Your task to perform on an android device: See recent photos Image 0: 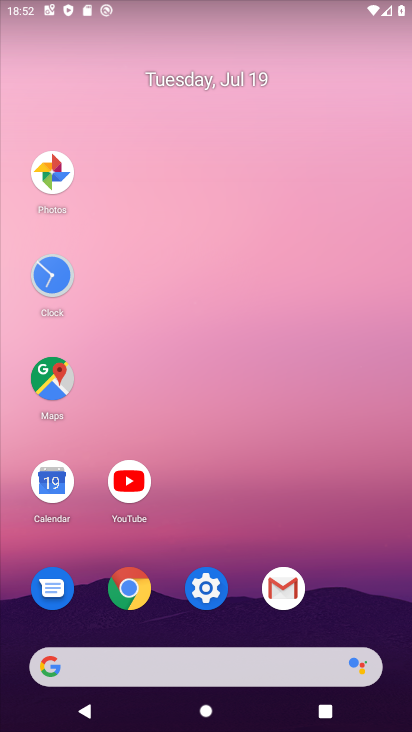
Step 0: click (53, 173)
Your task to perform on an android device: See recent photos Image 1: 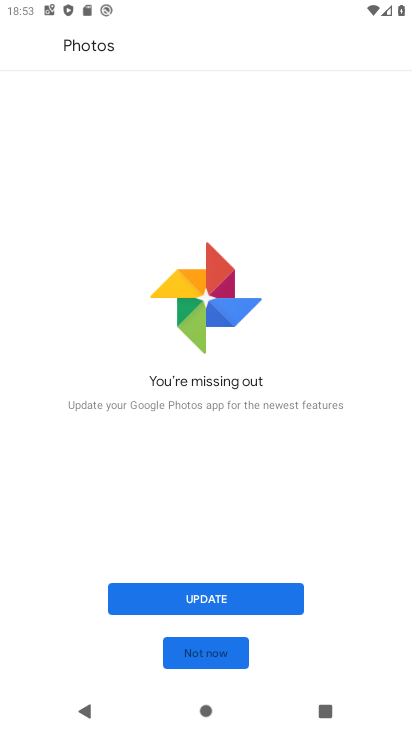
Step 1: click (186, 611)
Your task to perform on an android device: See recent photos Image 2: 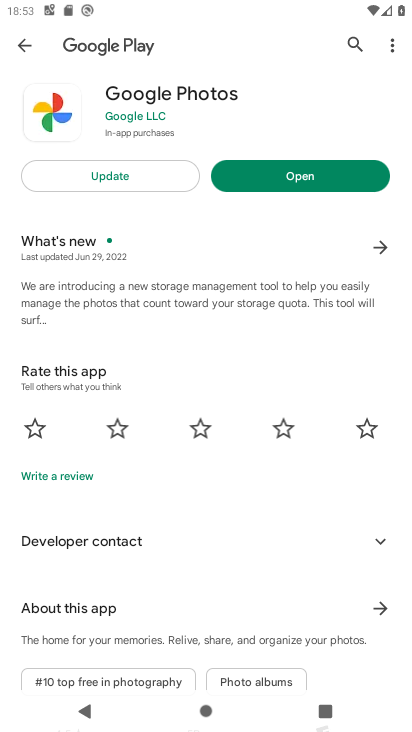
Step 2: click (109, 168)
Your task to perform on an android device: See recent photos Image 3: 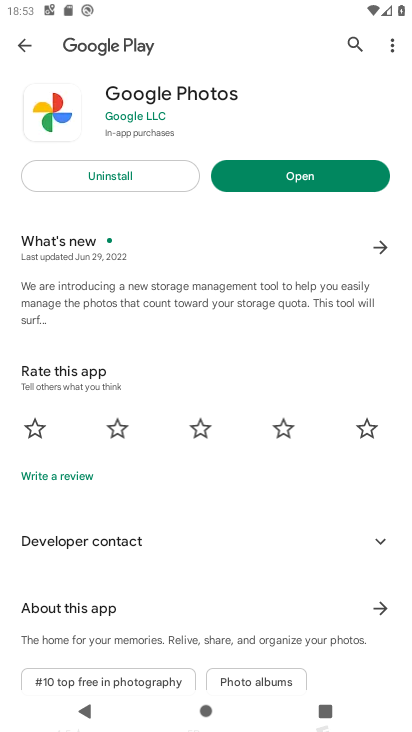
Step 3: click (280, 170)
Your task to perform on an android device: See recent photos Image 4: 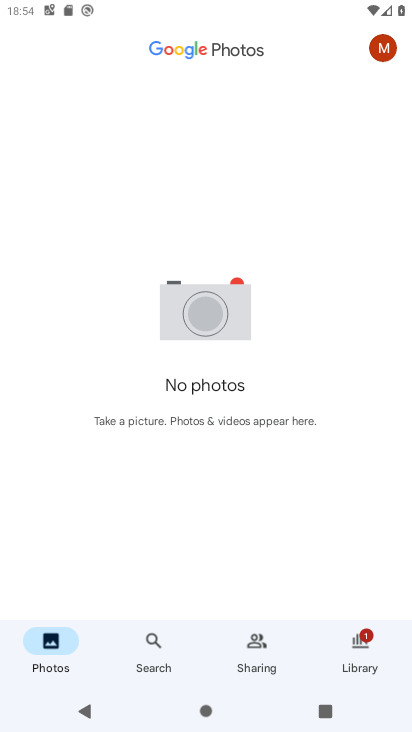
Step 4: task complete